Your task to perform on an android device: turn pop-ups off in chrome Image 0: 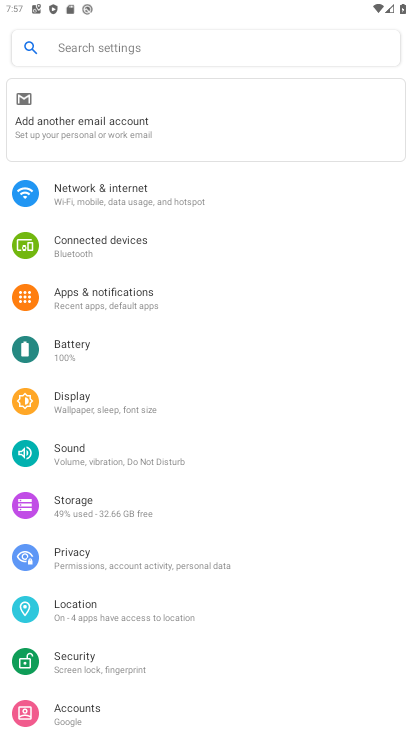
Step 0: press home button
Your task to perform on an android device: turn pop-ups off in chrome Image 1: 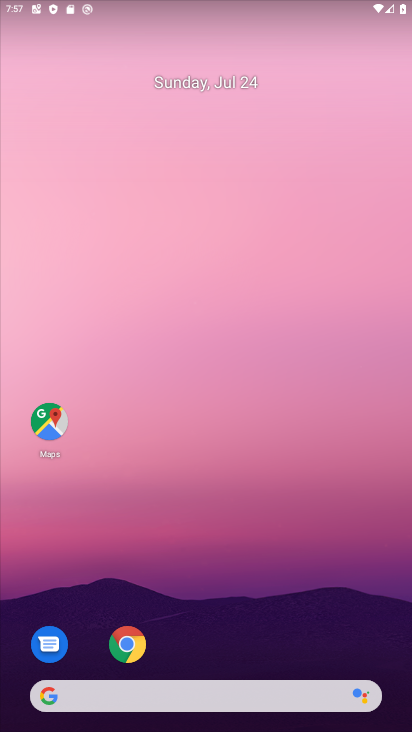
Step 1: click (125, 658)
Your task to perform on an android device: turn pop-ups off in chrome Image 2: 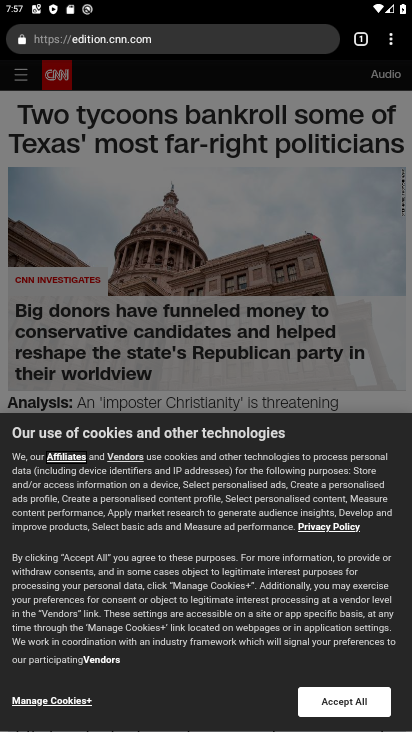
Step 2: click (393, 49)
Your task to perform on an android device: turn pop-ups off in chrome Image 3: 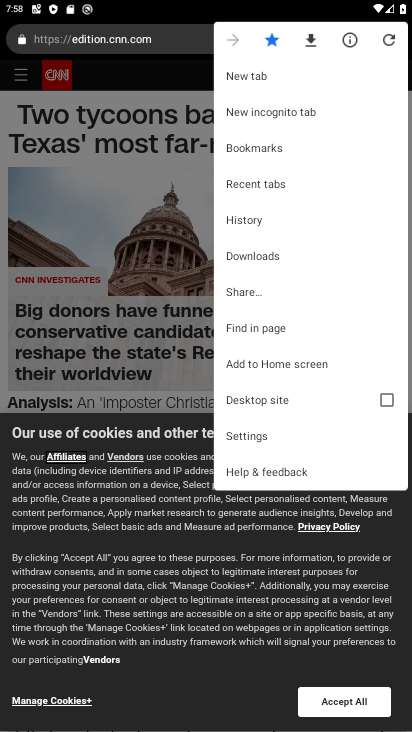
Step 3: click (264, 436)
Your task to perform on an android device: turn pop-ups off in chrome Image 4: 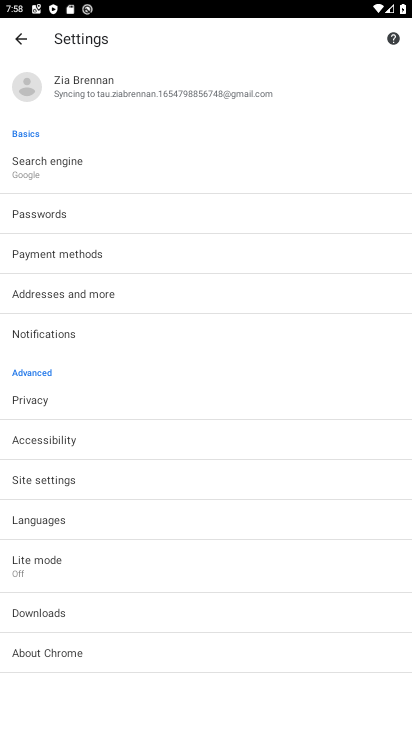
Step 4: click (78, 471)
Your task to perform on an android device: turn pop-ups off in chrome Image 5: 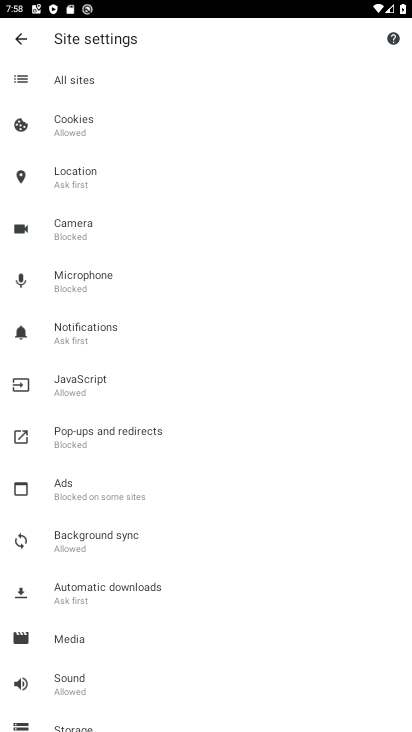
Step 5: click (88, 442)
Your task to perform on an android device: turn pop-ups off in chrome Image 6: 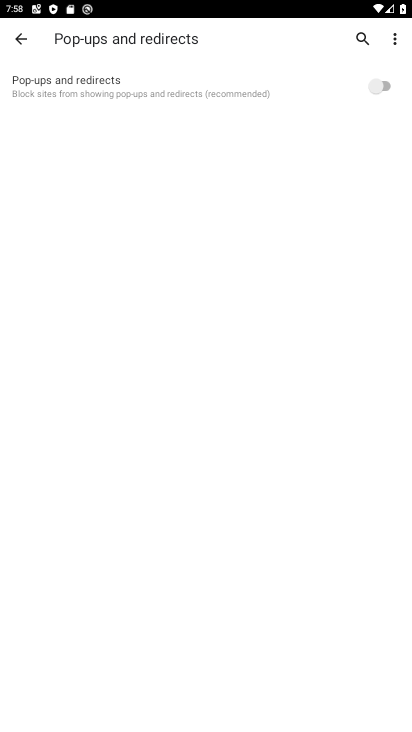
Step 6: task complete